Your task to perform on an android device: change timer sound Image 0: 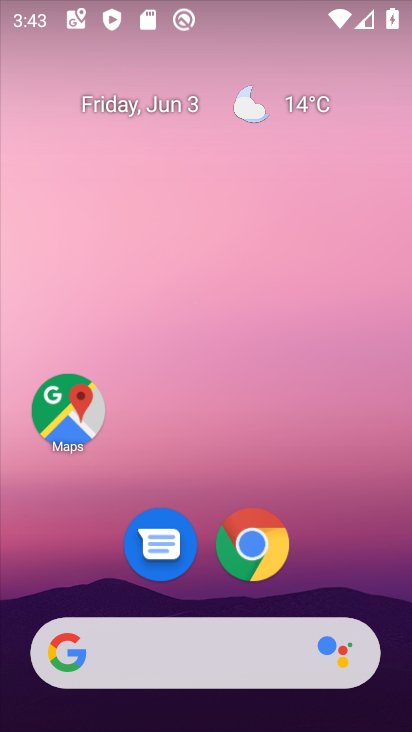
Step 0: drag from (394, 603) to (244, 76)
Your task to perform on an android device: change timer sound Image 1: 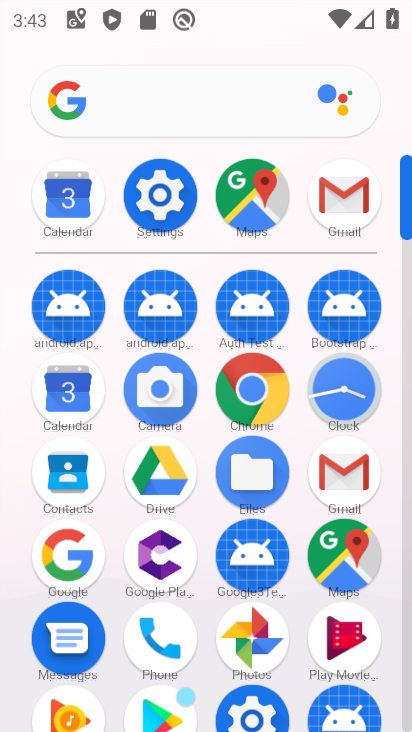
Step 1: click (344, 387)
Your task to perform on an android device: change timer sound Image 2: 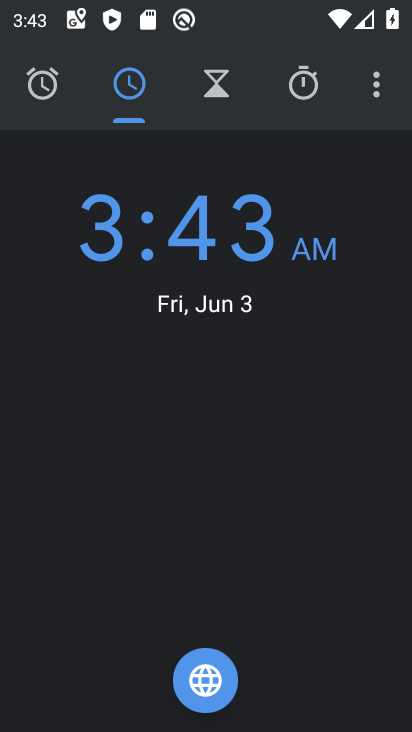
Step 2: click (374, 87)
Your task to perform on an android device: change timer sound Image 3: 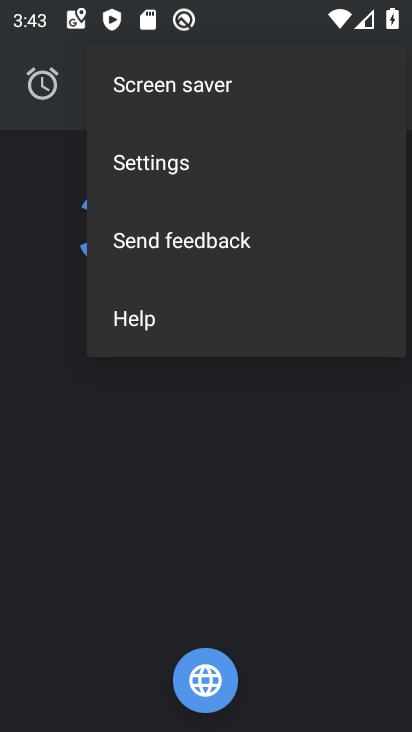
Step 3: click (169, 165)
Your task to perform on an android device: change timer sound Image 4: 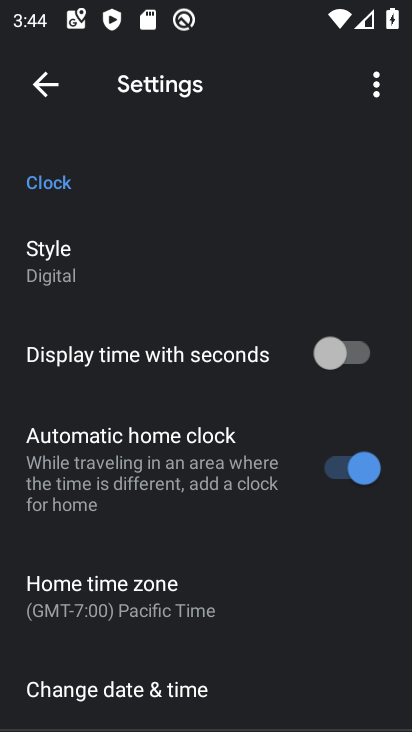
Step 4: drag from (246, 598) to (221, 323)
Your task to perform on an android device: change timer sound Image 5: 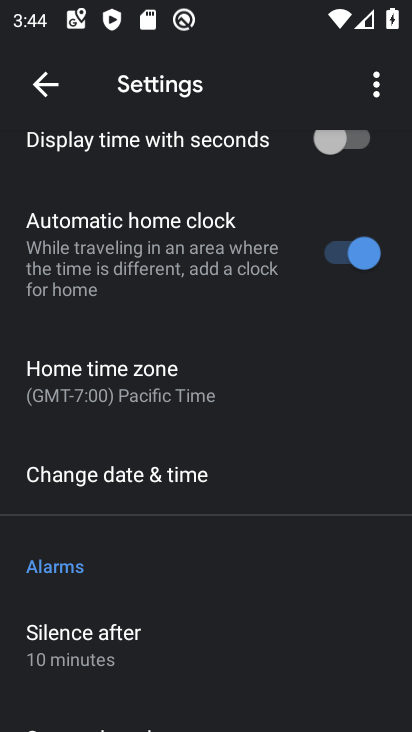
Step 5: drag from (211, 581) to (196, 333)
Your task to perform on an android device: change timer sound Image 6: 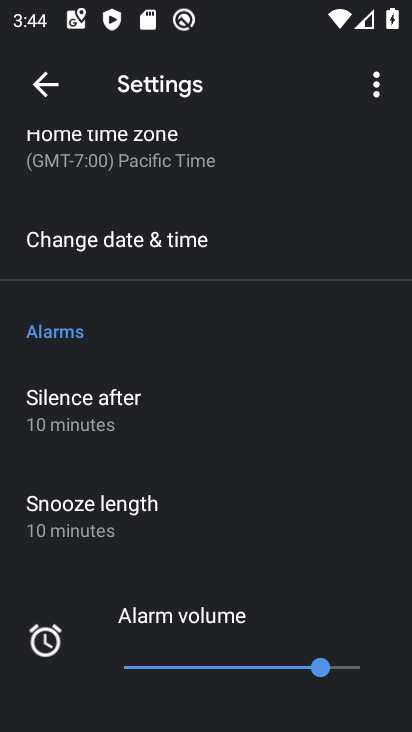
Step 6: drag from (245, 603) to (229, 252)
Your task to perform on an android device: change timer sound Image 7: 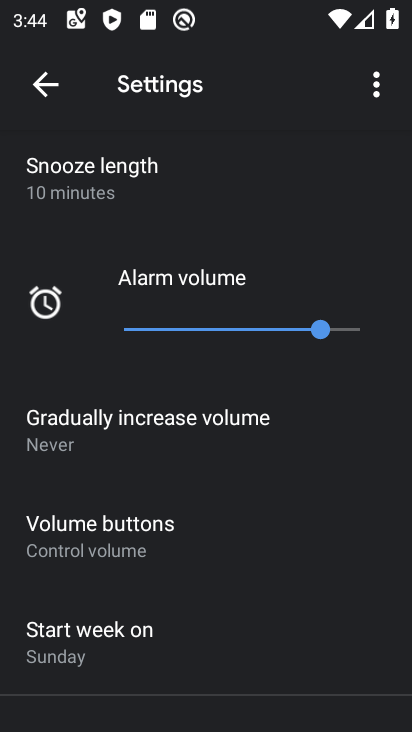
Step 7: drag from (235, 627) to (240, 118)
Your task to perform on an android device: change timer sound Image 8: 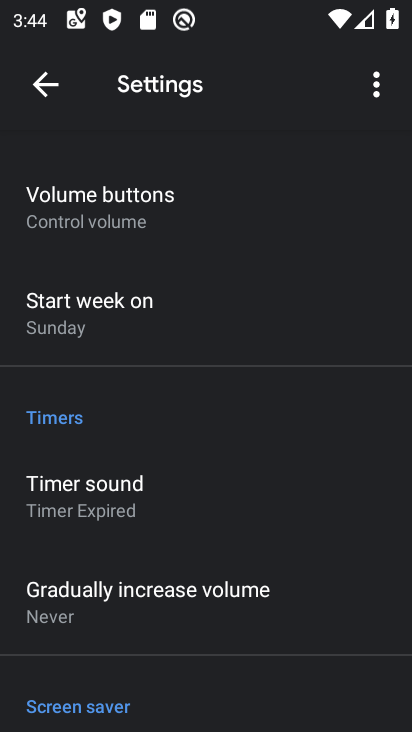
Step 8: click (98, 495)
Your task to perform on an android device: change timer sound Image 9: 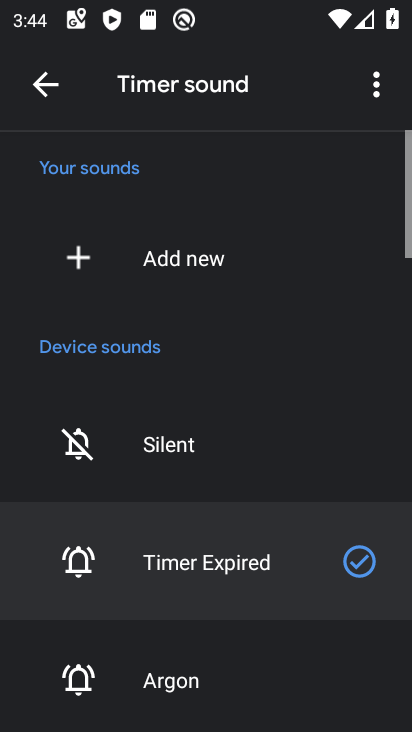
Step 9: drag from (257, 582) to (226, 137)
Your task to perform on an android device: change timer sound Image 10: 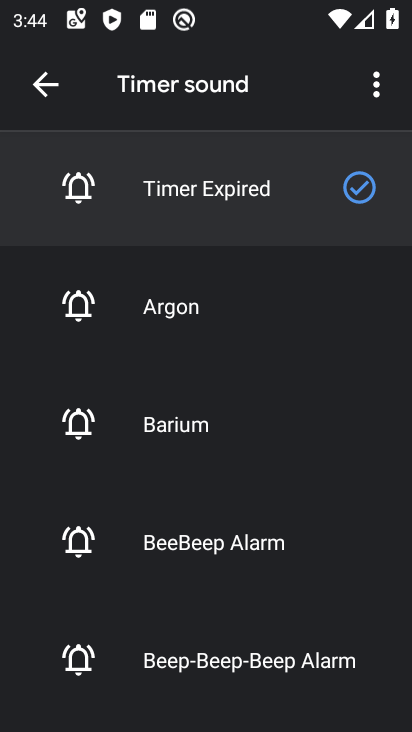
Step 10: click (244, 524)
Your task to perform on an android device: change timer sound Image 11: 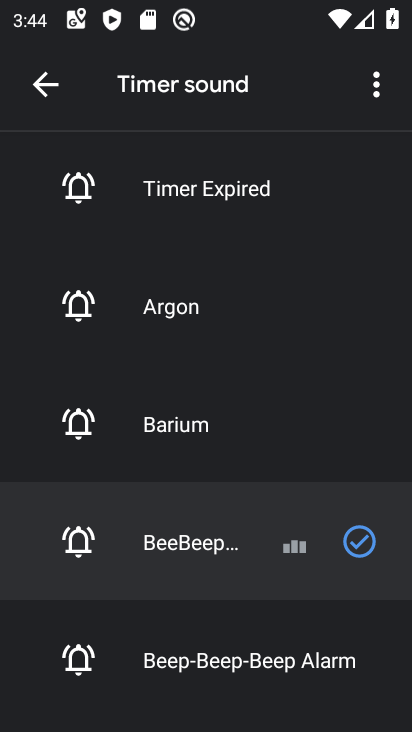
Step 11: task complete